Your task to perform on an android device: turn notification dots on Image 0: 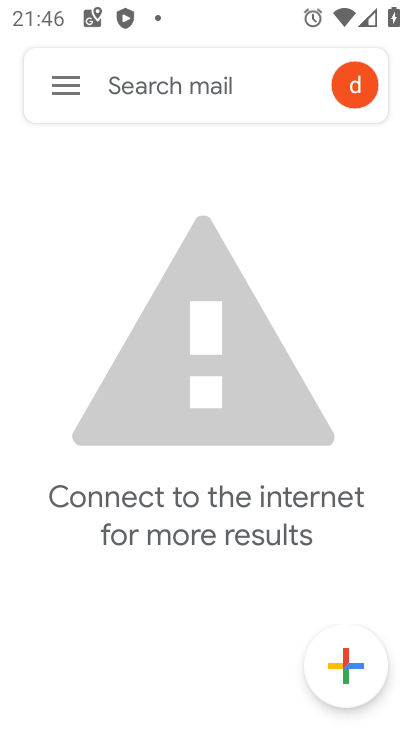
Step 0: press home button
Your task to perform on an android device: turn notification dots on Image 1: 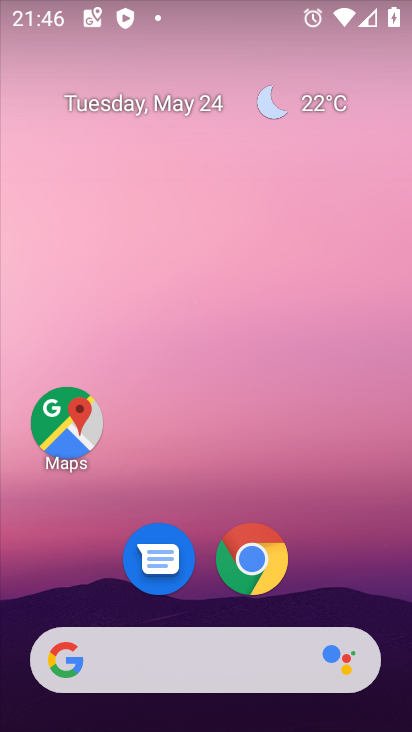
Step 1: drag from (313, 544) to (259, 113)
Your task to perform on an android device: turn notification dots on Image 2: 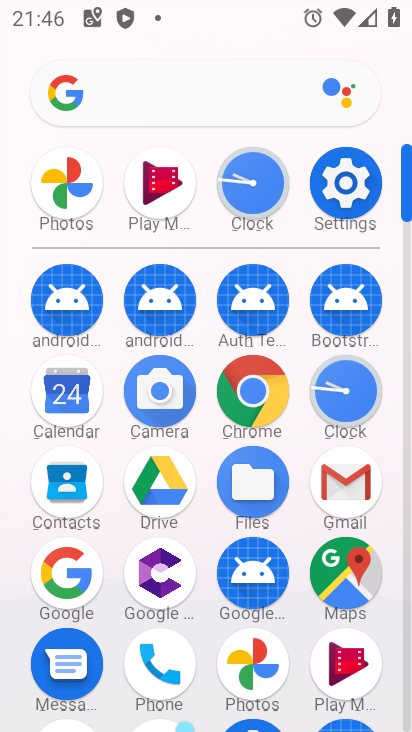
Step 2: click (341, 186)
Your task to perform on an android device: turn notification dots on Image 3: 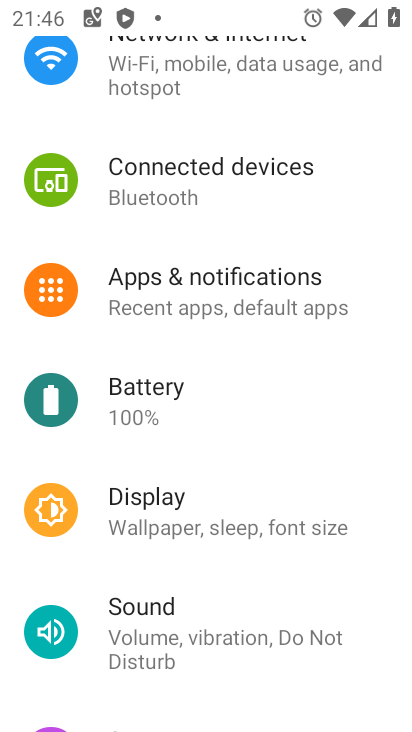
Step 3: click (234, 316)
Your task to perform on an android device: turn notification dots on Image 4: 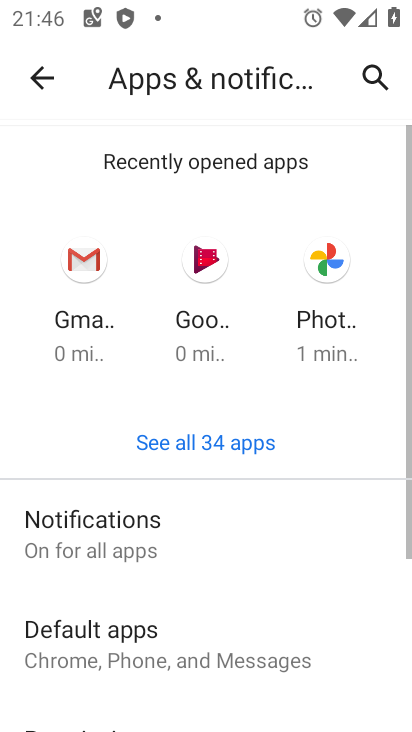
Step 4: click (148, 530)
Your task to perform on an android device: turn notification dots on Image 5: 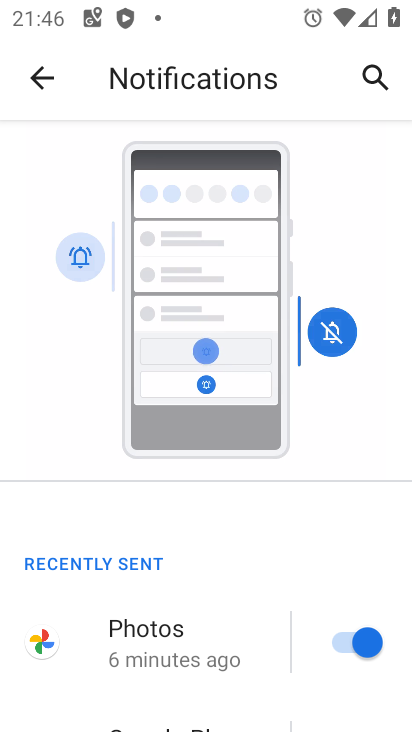
Step 5: drag from (190, 601) to (206, 30)
Your task to perform on an android device: turn notification dots on Image 6: 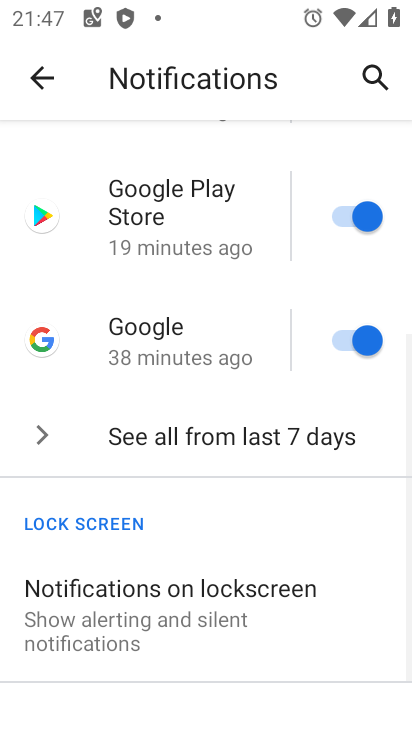
Step 6: drag from (212, 598) to (254, 160)
Your task to perform on an android device: turn notification dots on Image 7: 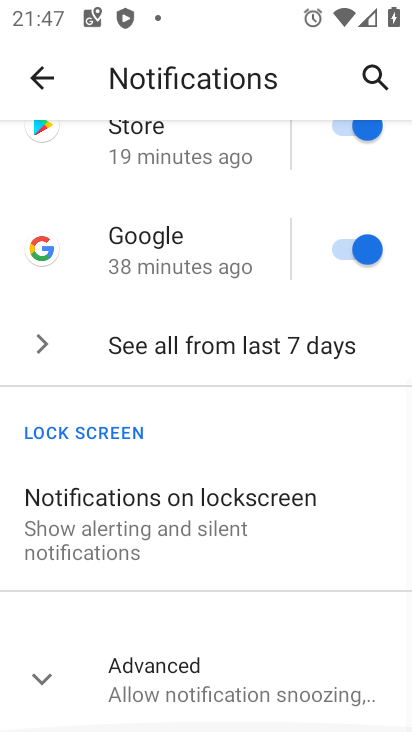
Step 7: click (176, 708)
Your task to perform on an android device: turn notification dots on Image 8: 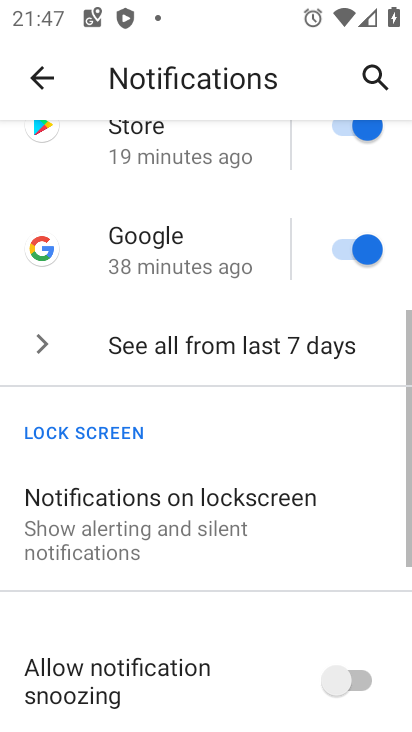
Step 8: task complete